Your task to perform on an android device: find photos in the google photos app Image 0: 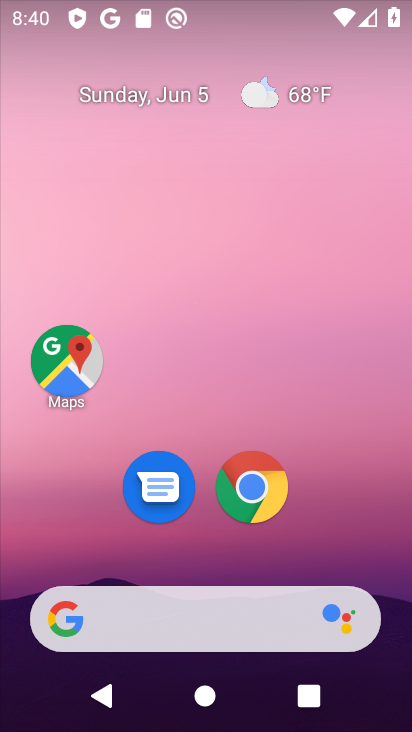
Step 0: drag from (174, 552) to (259, 144)
Your task to perform on an android device: find photos in the google photos app Image 1: 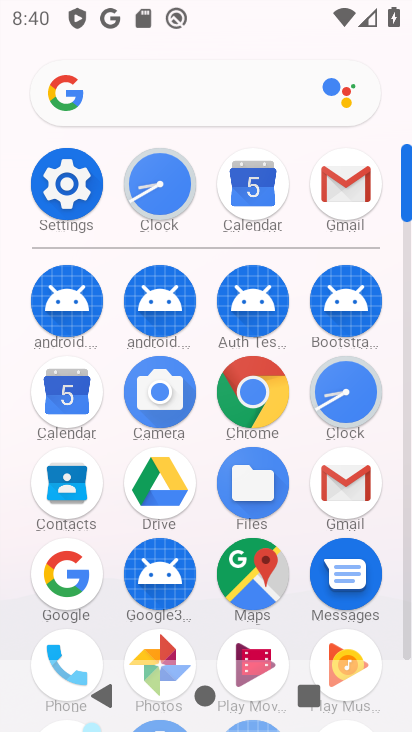
Step 1: click (160, 650)
Your task to perform on an android device: find photos in the google photos app Image 2: 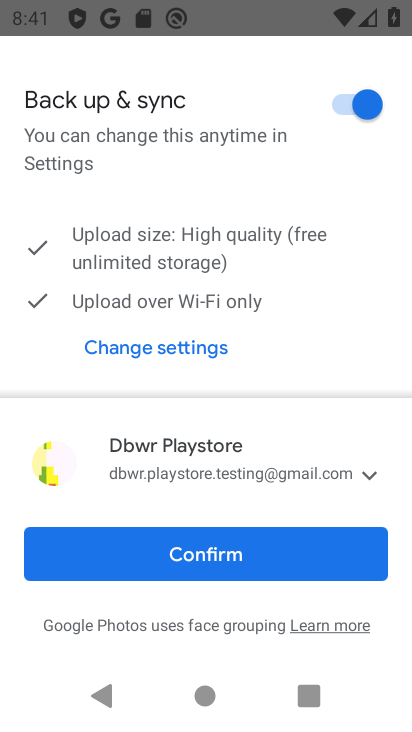
Step 2: press back button
Your task to perform on an android device: find photos in the google photos app Image 3: 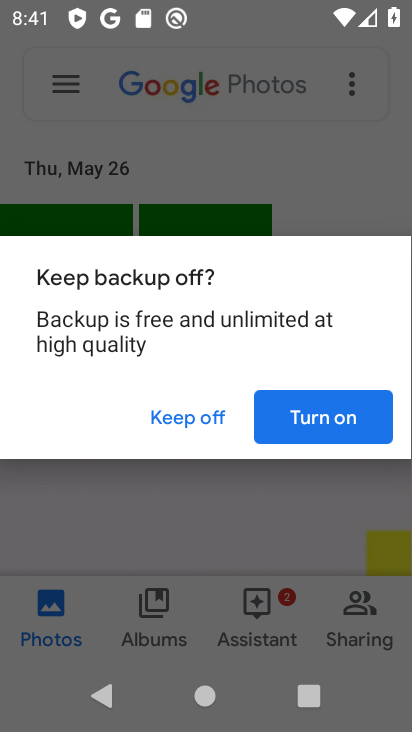
Step 3: press home button
Your task to perform on an android device: find photos in the google photos app Image 4: 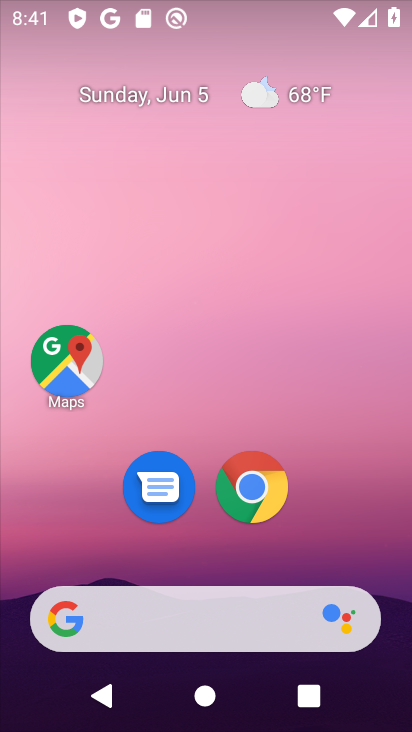
Step 4: drag from (180, 567) to (248, 50)
Your task to perform on an android device: find photos in the google photos app Image 5: 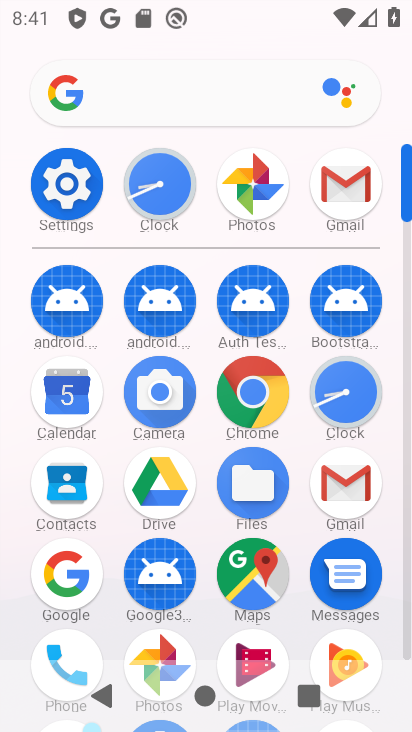
Step 5: click (253, 171)
Your task to perform on an android device: find photos in the google photos app Image 6: 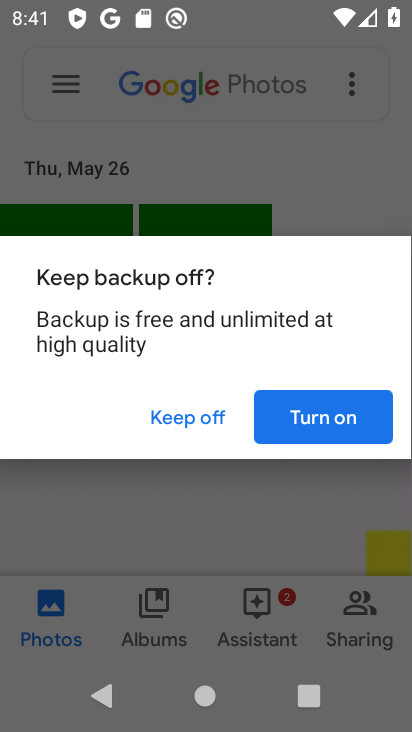
Step 6: click (204, 417)
Your task to perform on an android device: find photos in the google photos app Image 7: 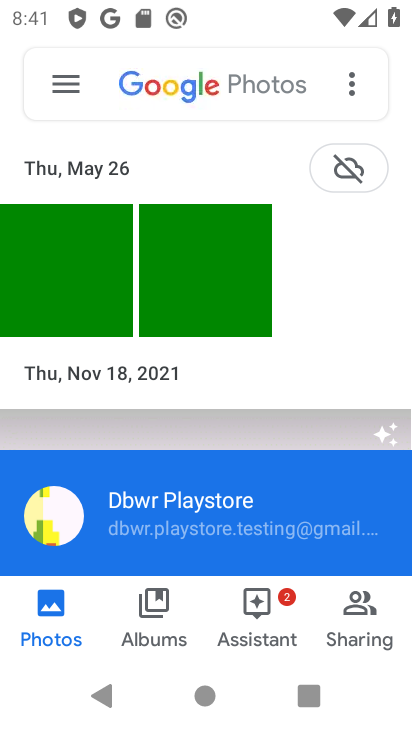
Step 7: task complete